Your task to perform on an android device: move a message to another label in the gmail app Image 0: 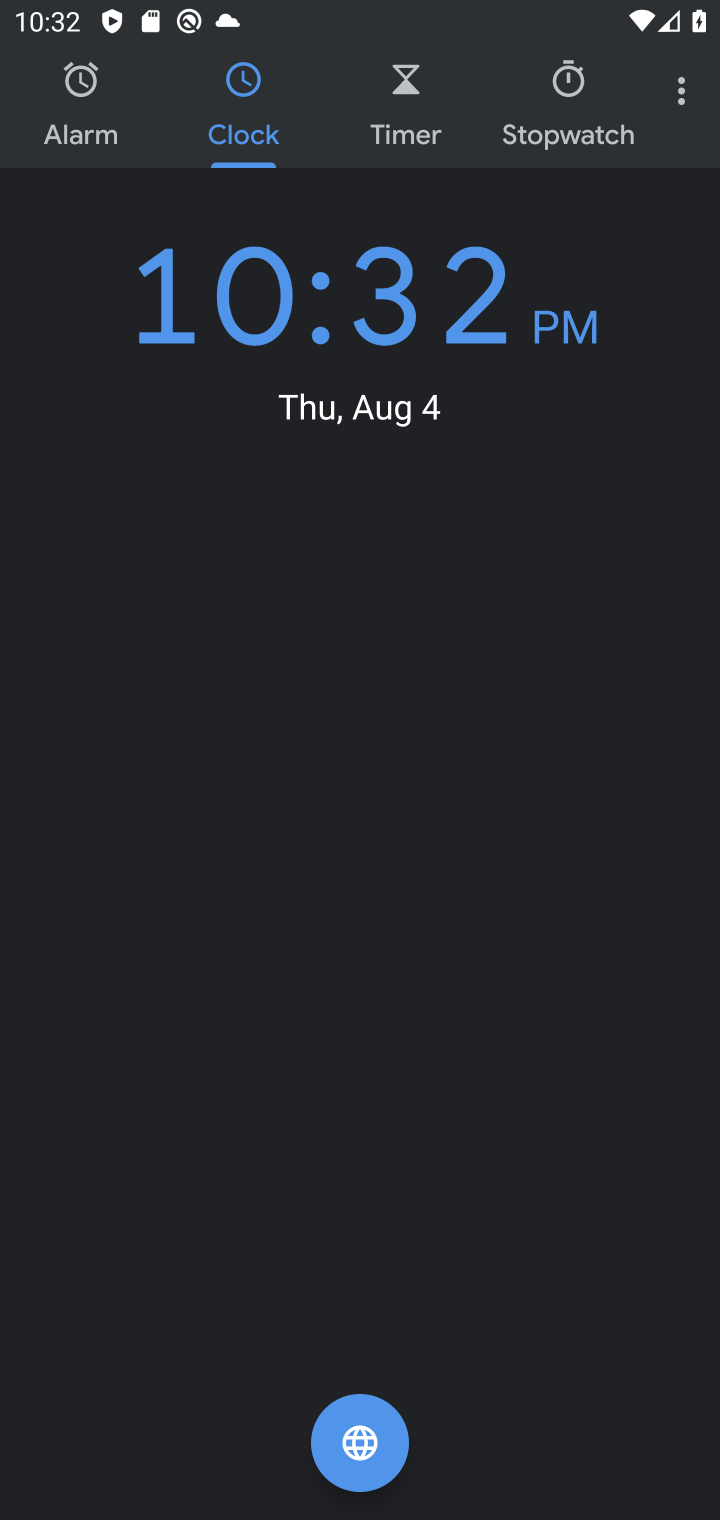
Step 0: press home button
Your task to perform on an android device: move a message to another label in the gmail app Image 1: 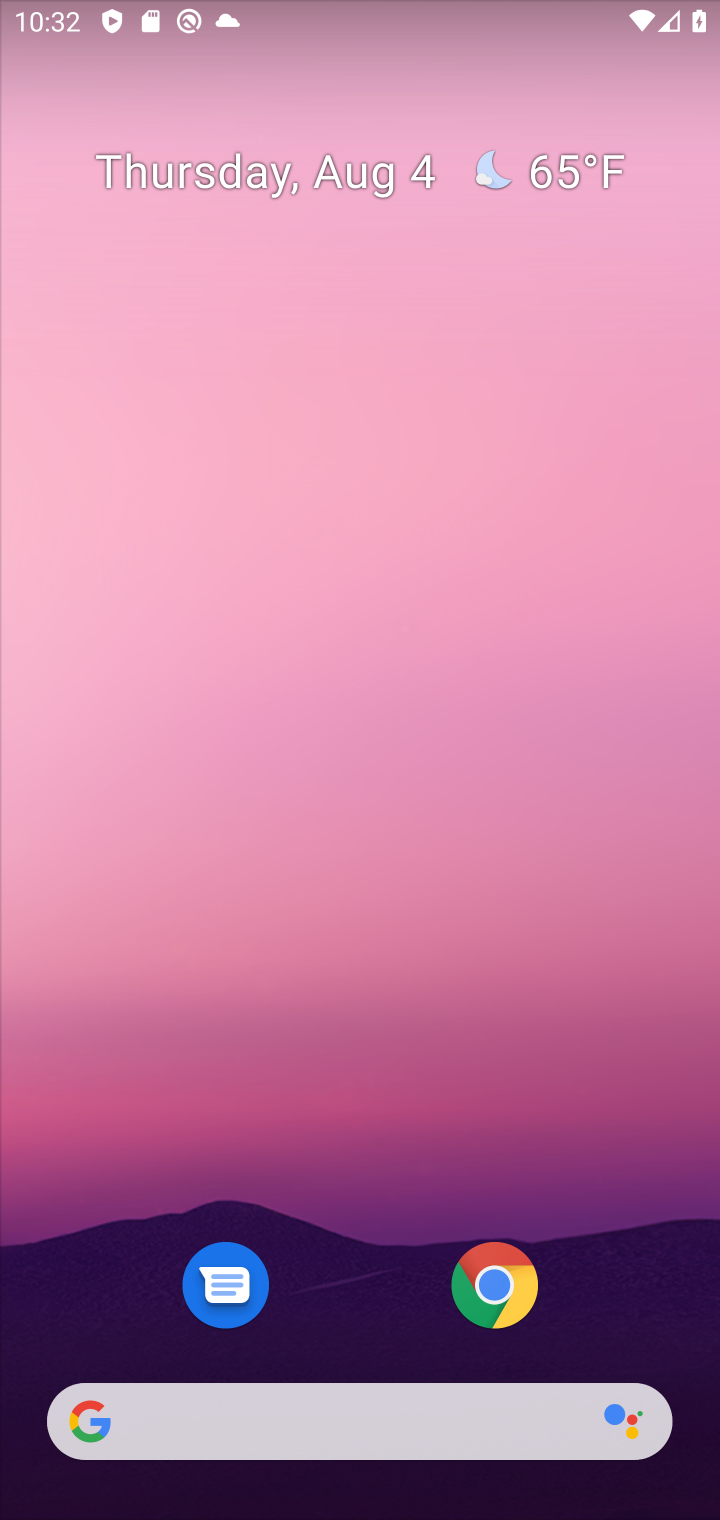
Step 1: drag from (358, 1343) to (303, 9)
Your task to perform on an android device: move a message to another label in the gmail app Image 2: 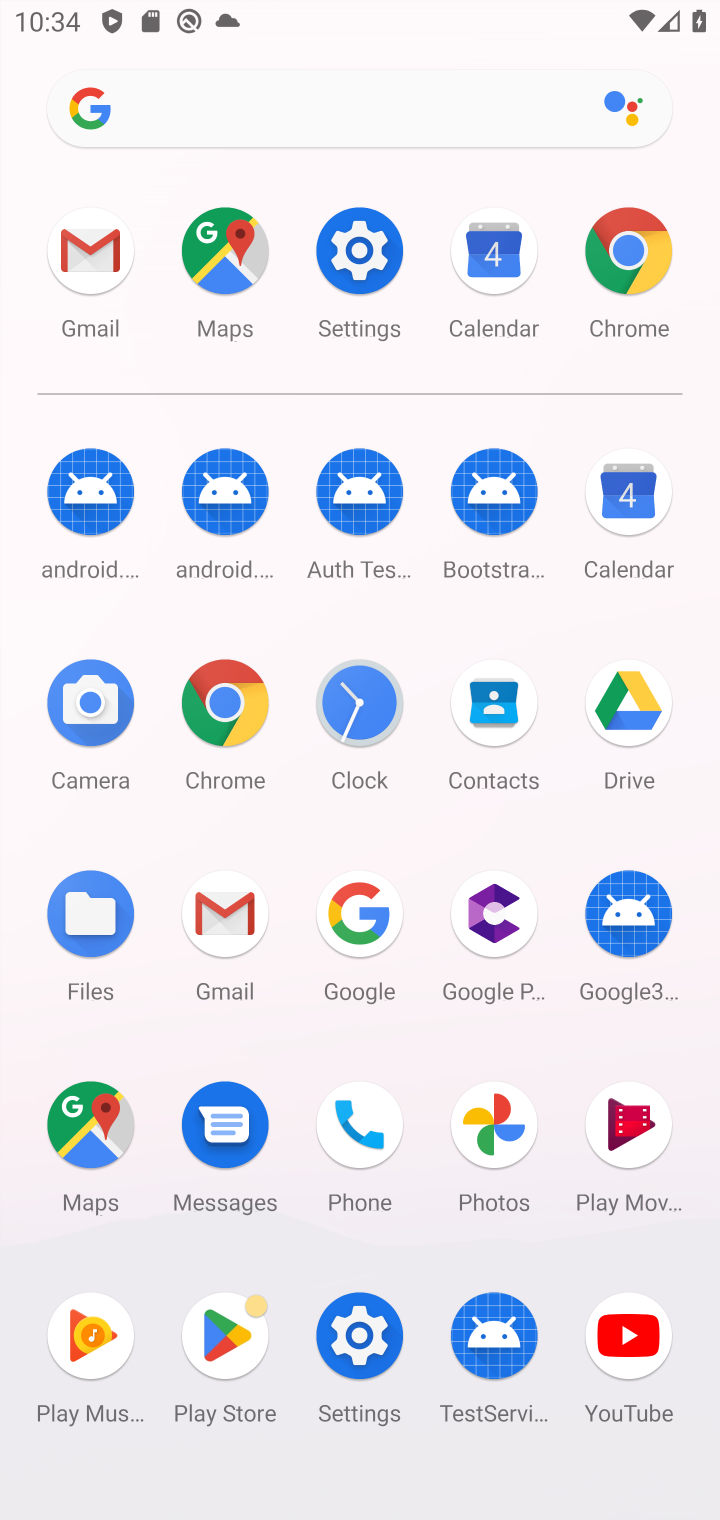
Step 2: click (218, 919)
Your task to perform on an android device: move a message to another label in the gmail app Image 3: 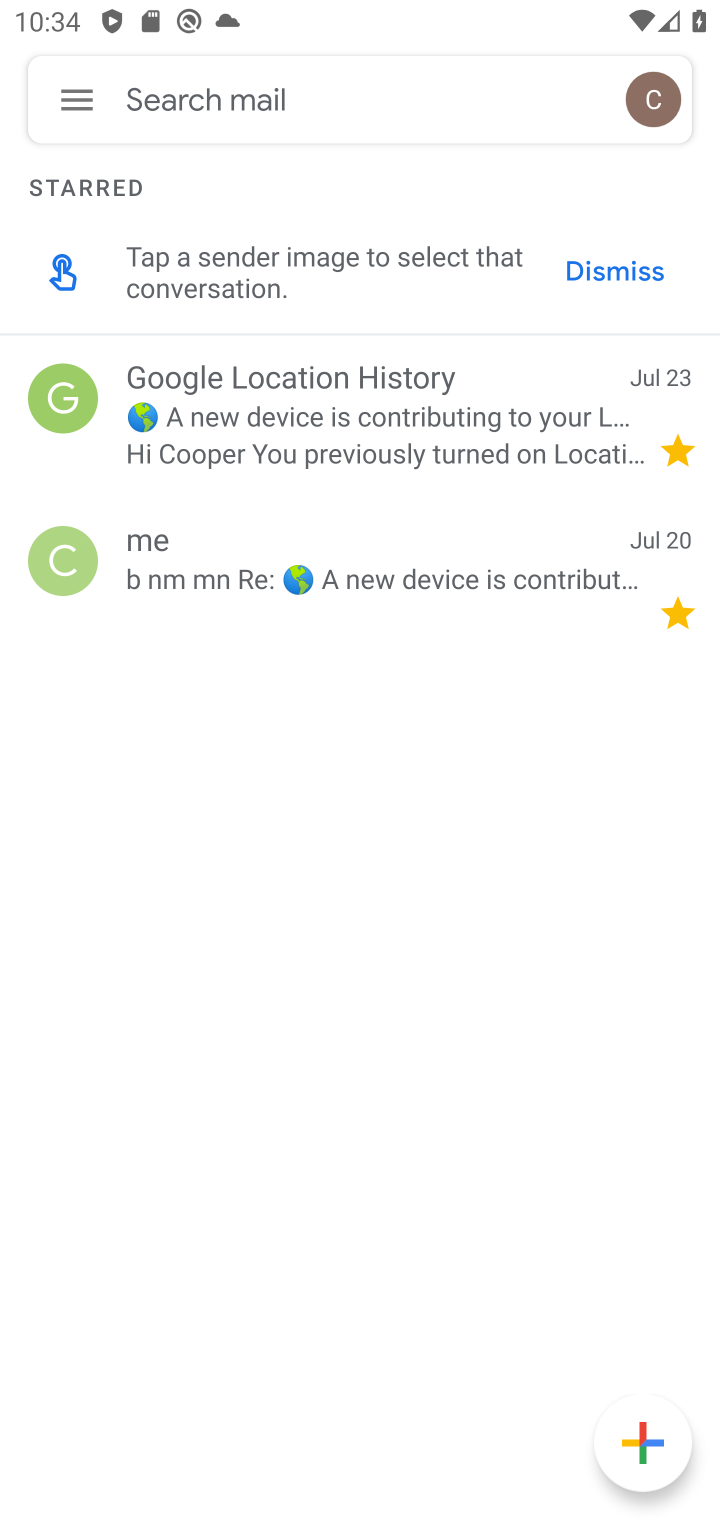
Step 3: task complete